Your task to perform on an android device: uninstall "Truecaller" Image 0: 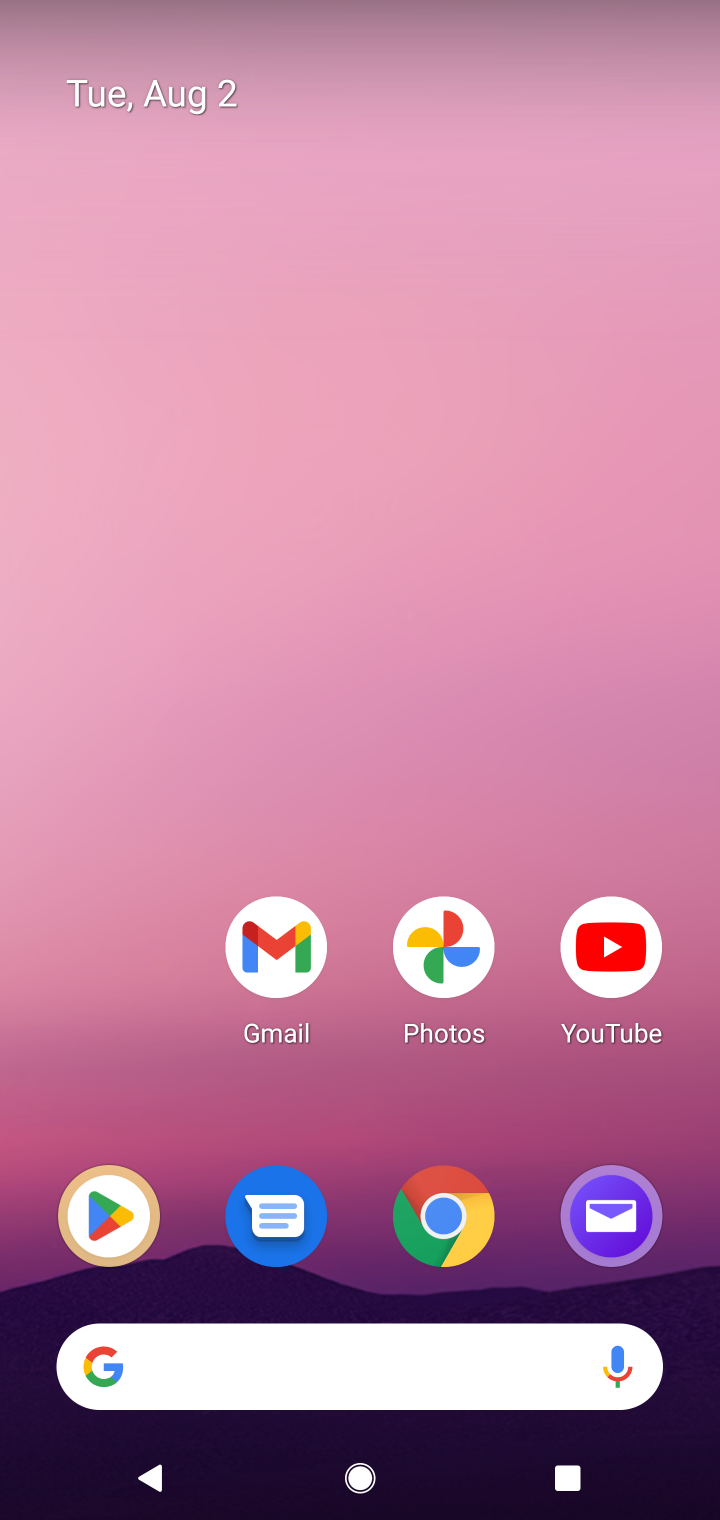
Step 0: drag from (179, 1278) to (162, 151)
Your task to perform on an android device: uninstall "Truecaller" Image 1: 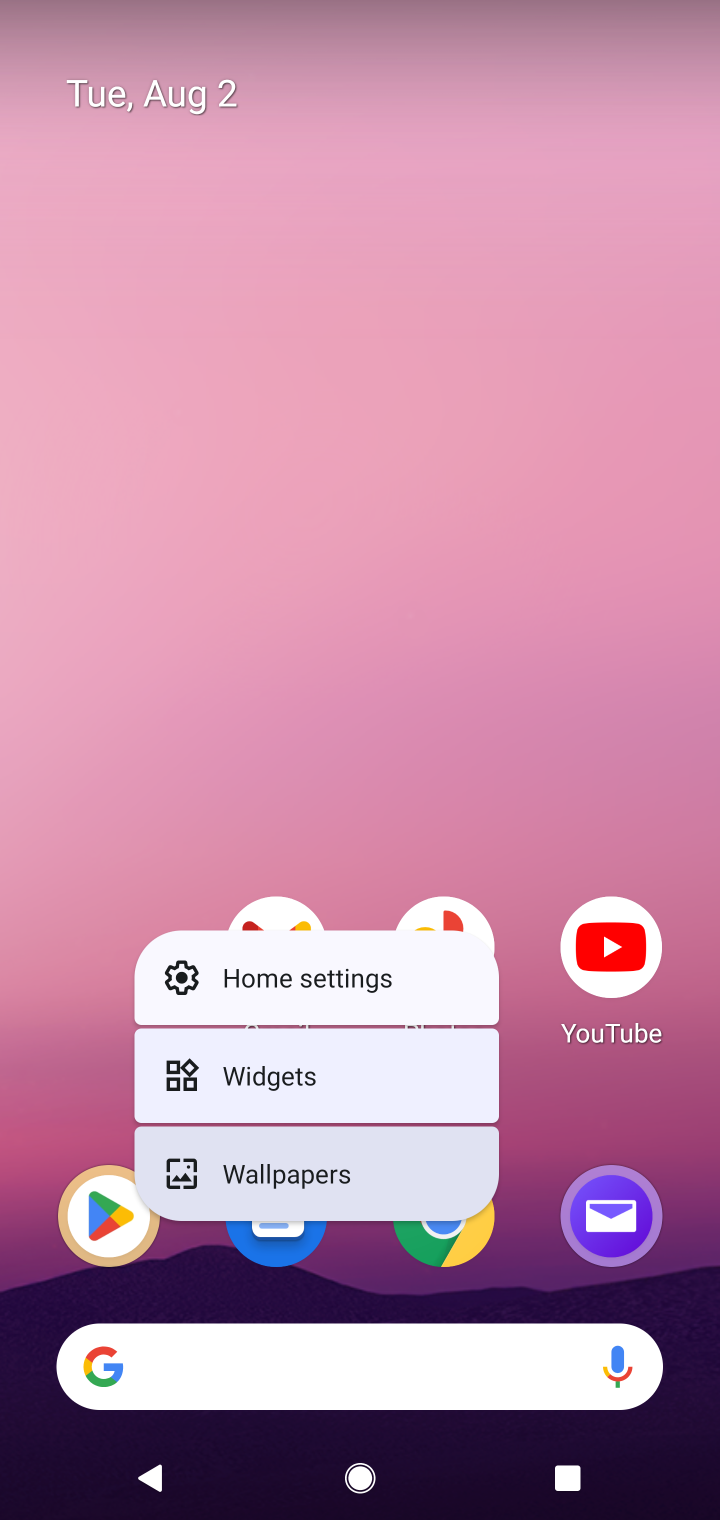
Step 1: click (211, 413)
Your task to perform on an android device: uninstall "Truecaller" Image 2: 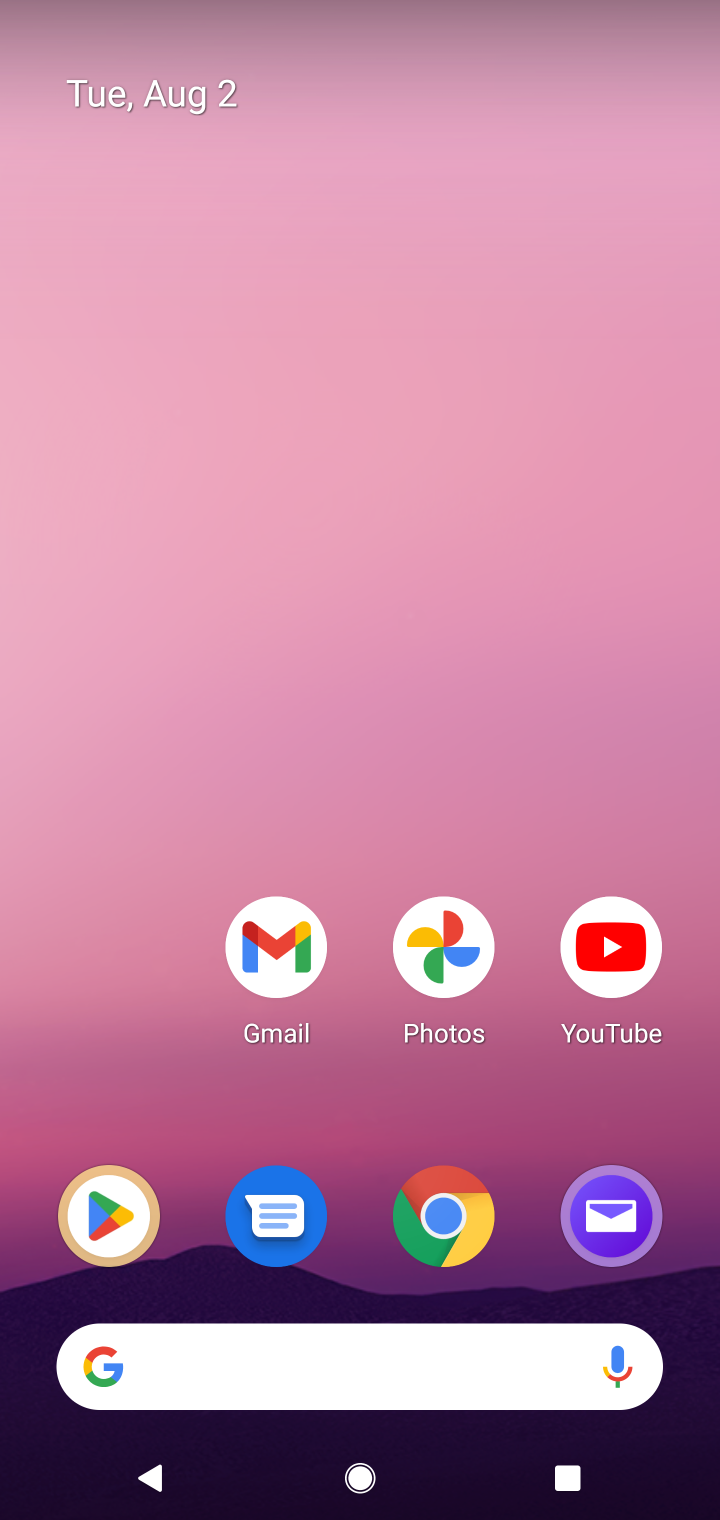
Step 2: drag from (198, 1304) to (214, 162)
Your task to perform on an android device: uninstall "Truecaller" Image 3: 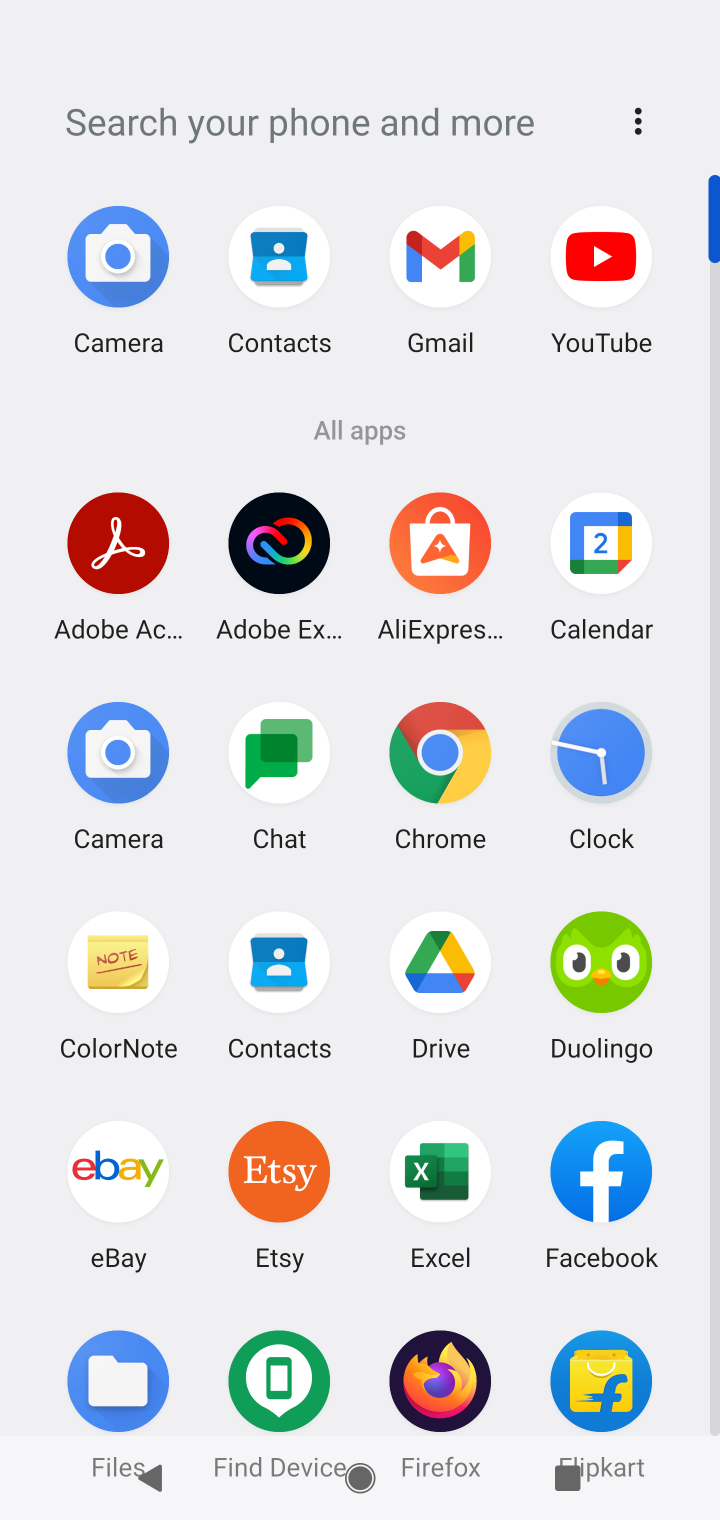
Step 3: click (713, 1421)
Your task to perform on an android device: uninstall "Truecaller" Image 4: 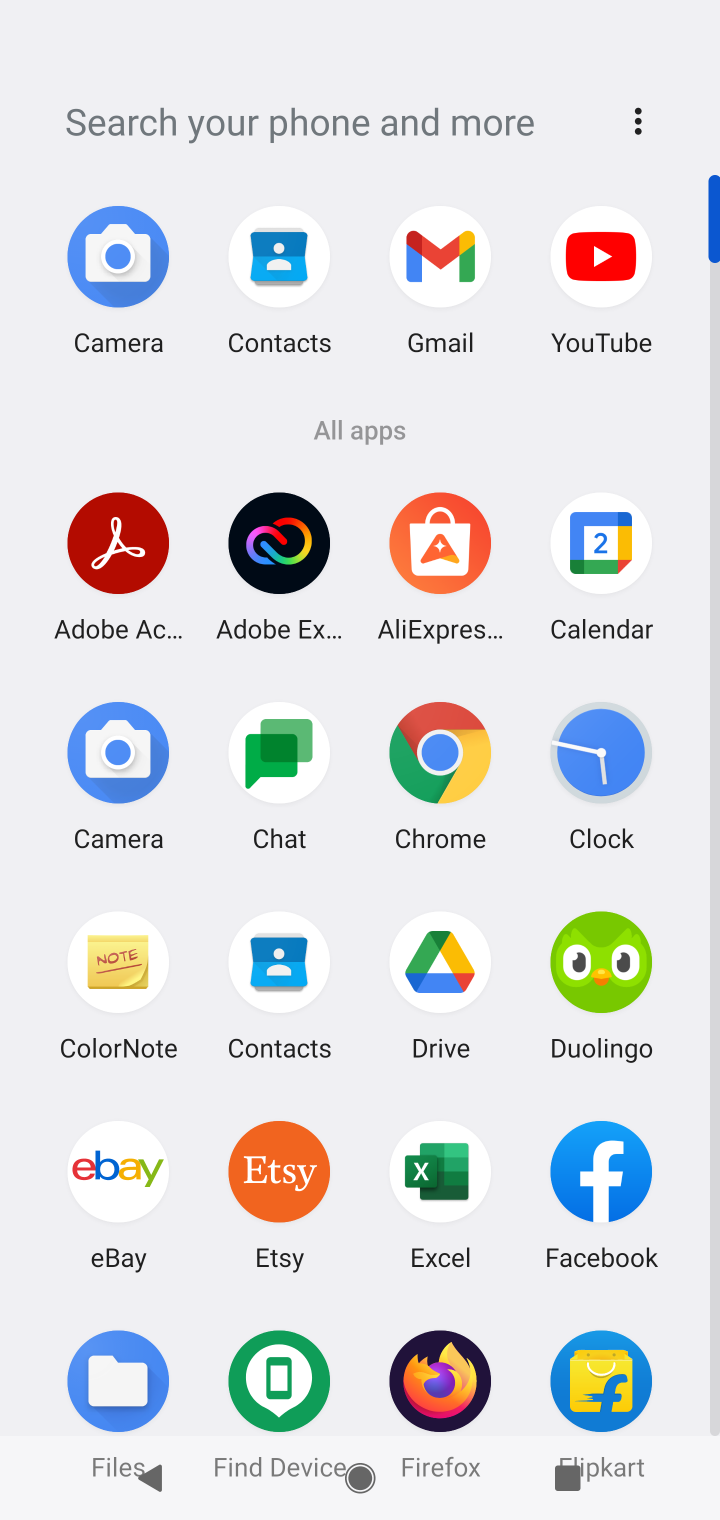
Step 4: click (713, 1421)
Your task to perform on an android device: uninstall "Truecaller" Image 5: 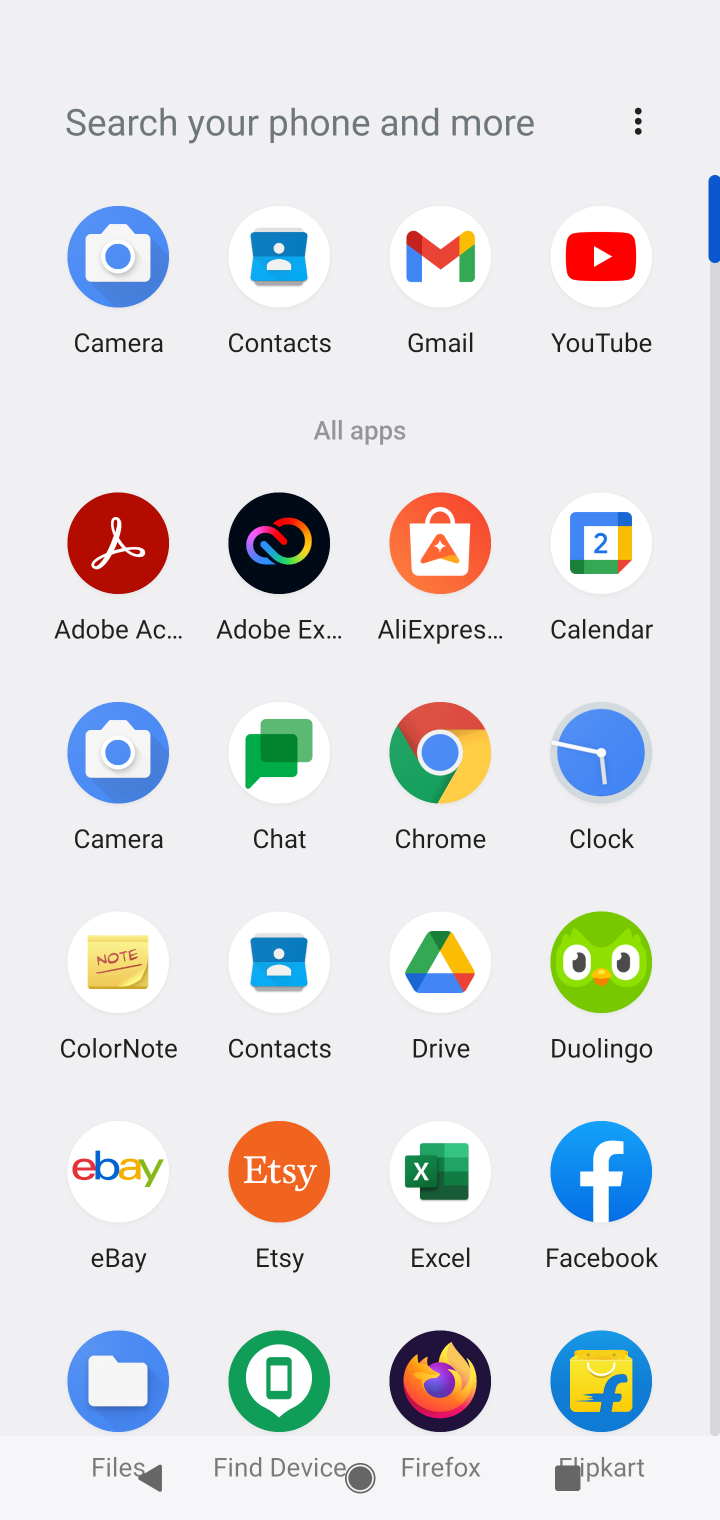
Step 5: task complete